Your task to perform on an android device: Search for sushi restaurants on Maps Image 0: 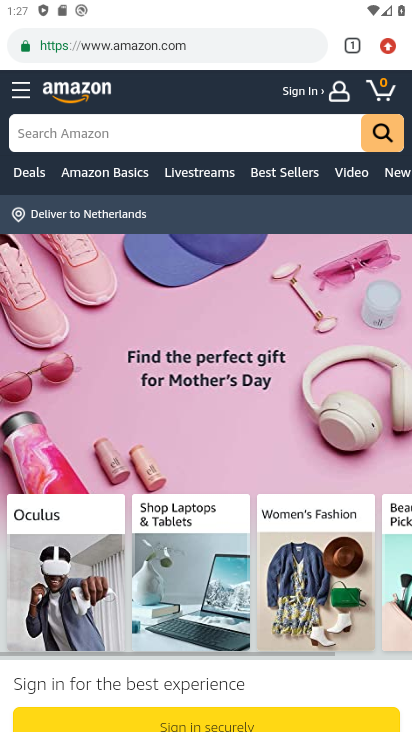
Step 0: press home button
Your task to perform on an android device: Search for sushi restaurants on Maps Image 1: 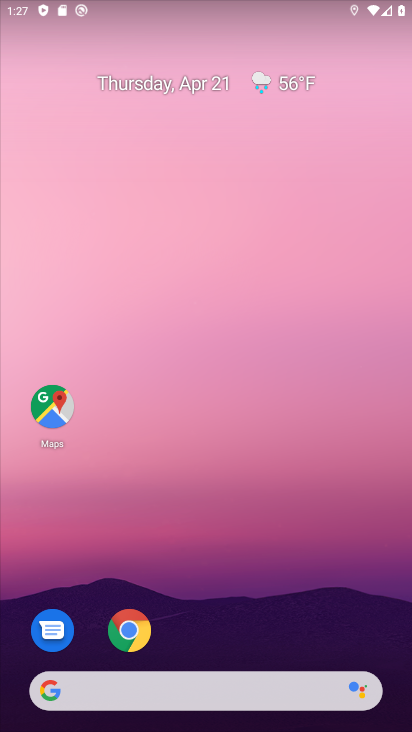
Step 1: click (41, 419)
Your task to perform on an android device: Search for sushi restaurants on Maps Image 2: 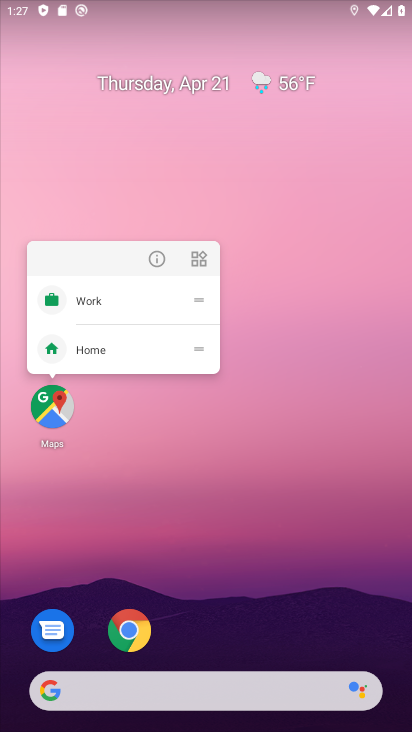
Step 2: click (43, 413)
Your task to perform on an android device: Search for sushi restaurants on Maps Image 3: 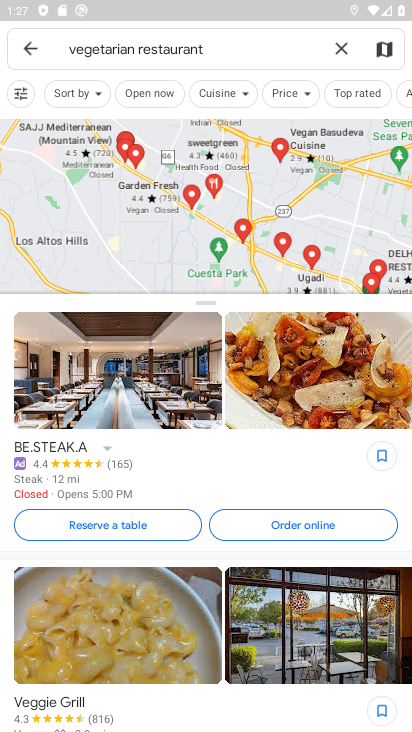
Step 3: click (347, 41)
Your task to perform on an android device: Search for sushi restaurants on Maps Image 4: 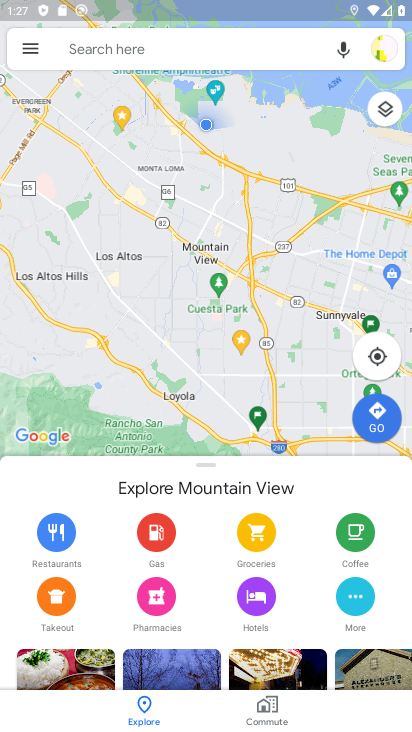
Step 4: click (216, 47)
Your task to perform on an android device: Search for sushi restaurants on Maps Image 5: 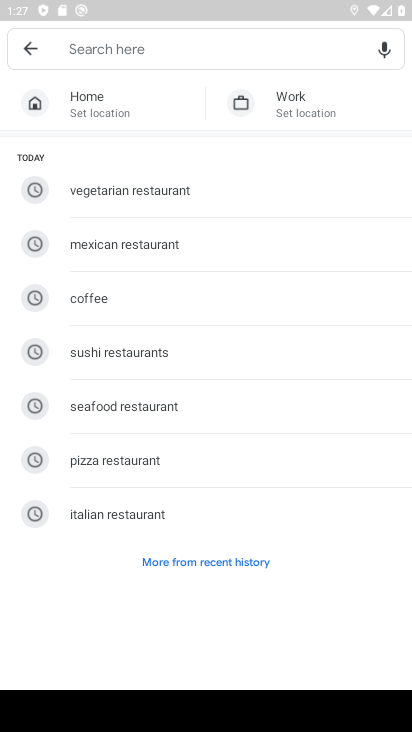
Step 5: click (138, 358)
Your task to perform on an android device: Search for sushi restaurants on Maps Image 6: 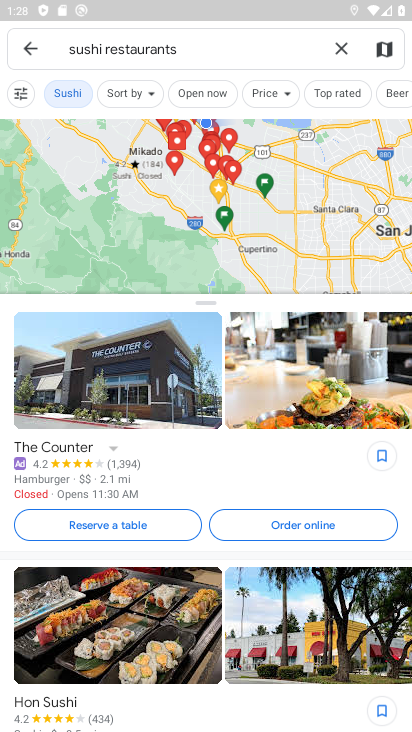
Step 6: task complete